Your task to perform on an android device: Go to notification settings Image 0: 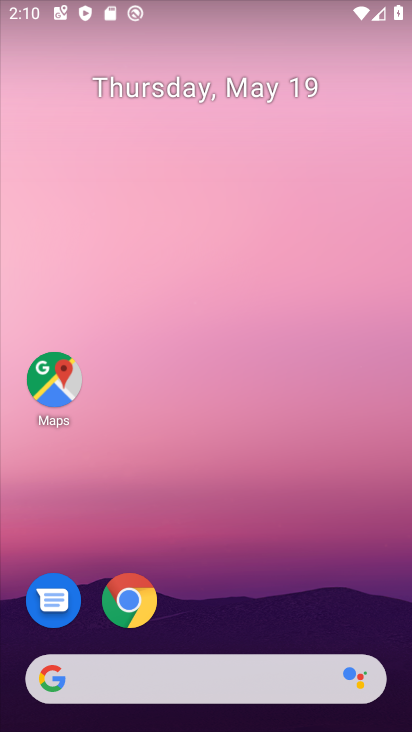
Step 0: drag from (176, 643) to (243, 150)
Your task to perform on an android device: Go to notification settings Image 1: 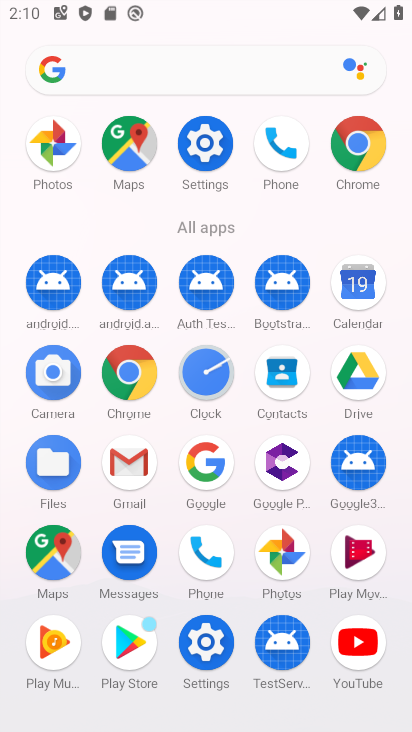
Step 1: click (200, 131)
Your task to perform on an android device: Go to notification settings Image 2: 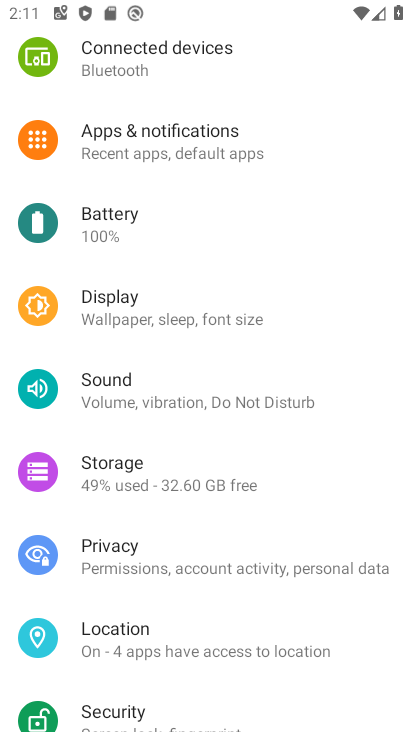
Step 2: click (139, 145)
Your task to perform on an android device: Go to notification settings Image 3: 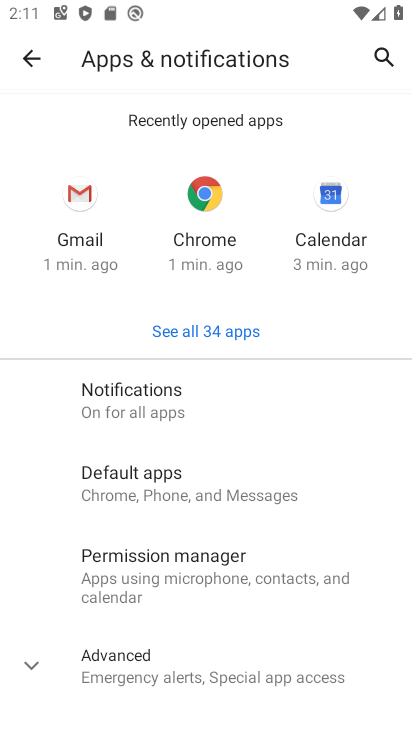
Step 3: drag from (201, 666) to (252, 292)
Your task to perform on an android device: Go to notification settings Image 4: 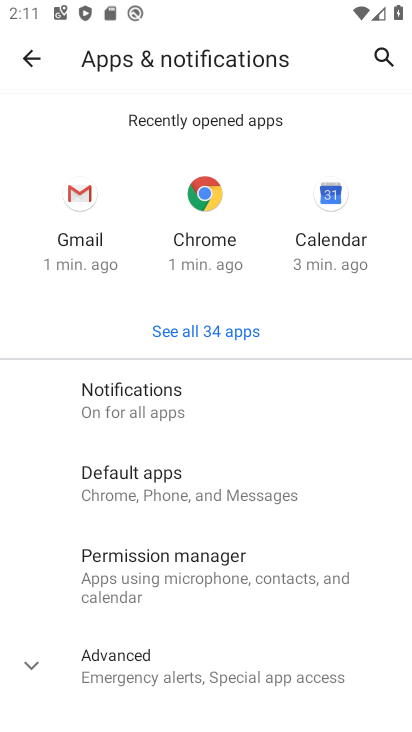
Step 4: click (156, 665)
Your task to perform on an android device: Go to notification settings Image 5: 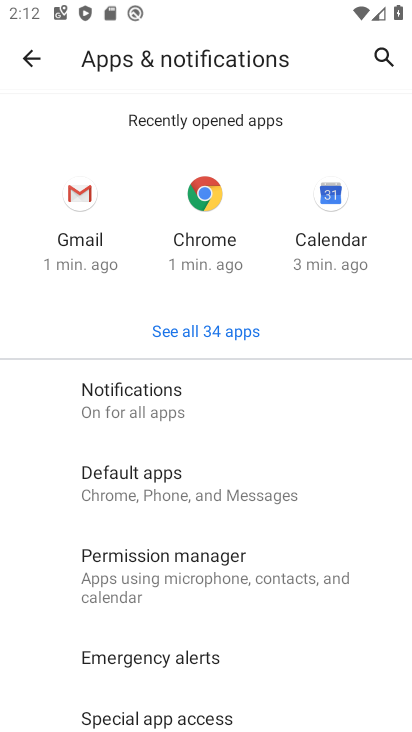
Step 5: task complete